Your task to perform on an android device: turn pop-ups on in chrome Image 0: 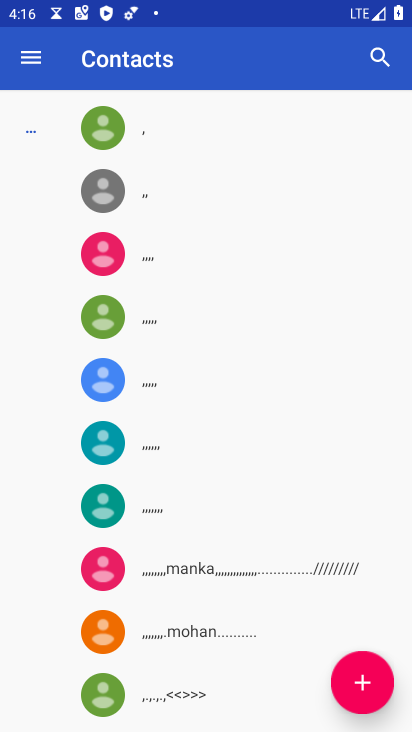
Step 0: press home button
Your task to perform on an android device: turn pop-ups on in chrome Image 1: 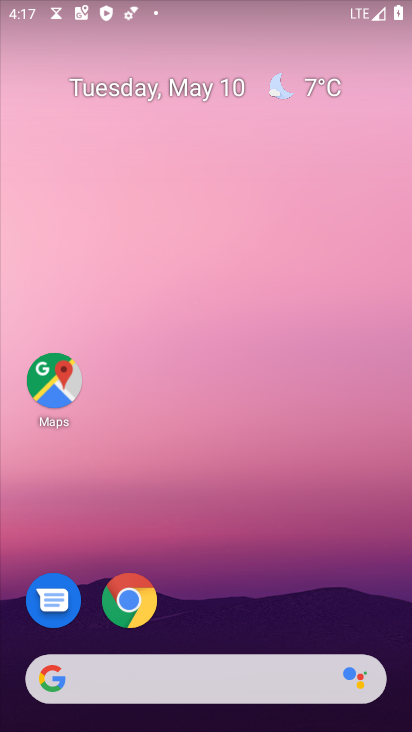
Step 1: click (133, 595)
Your task to perform on an android device: turn pop-ups on in chrome Image 2: 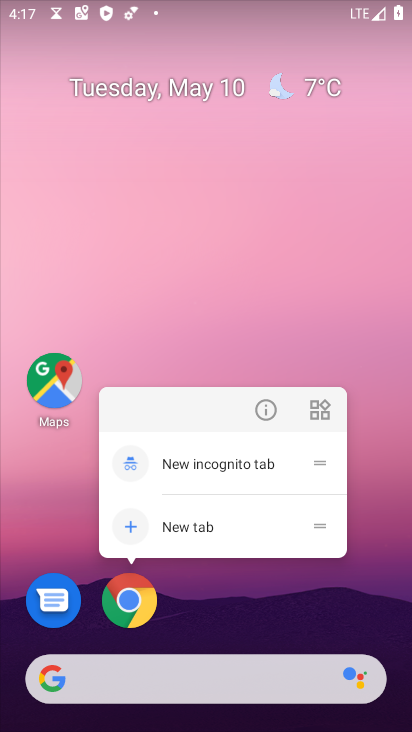
Step 2: click (133, 595)
Your task to perform on an android device: turn pop-ups on in chrome Image 3: 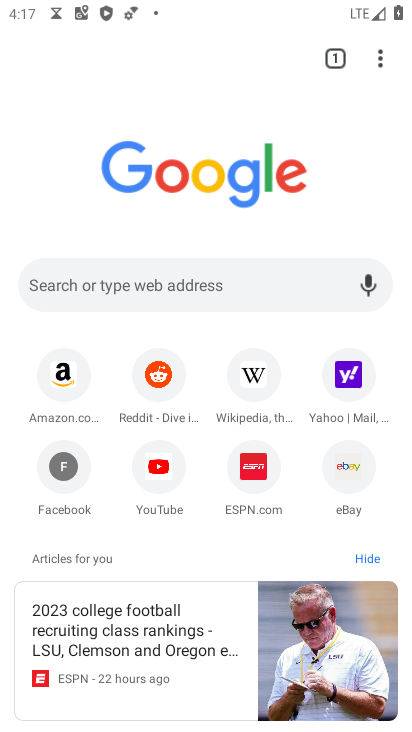
Step 3: click (383, 59)
Your task to perform on an android device: turn pop-ups on in chrome Image 4: 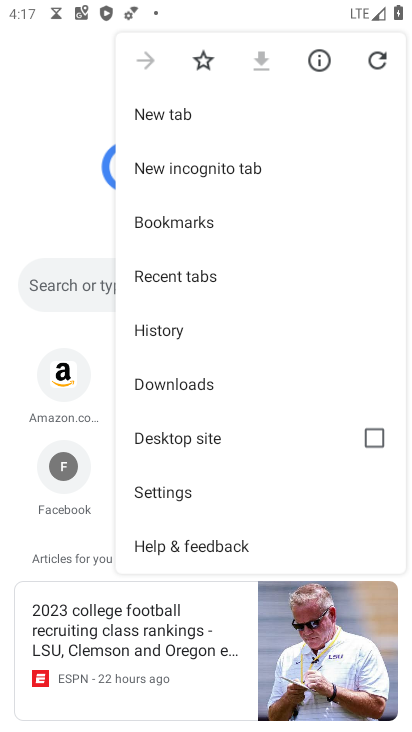
Step 4: click (205, 492)
Your task to perform on an android device: turn pop-ups on in chrome Image 5: 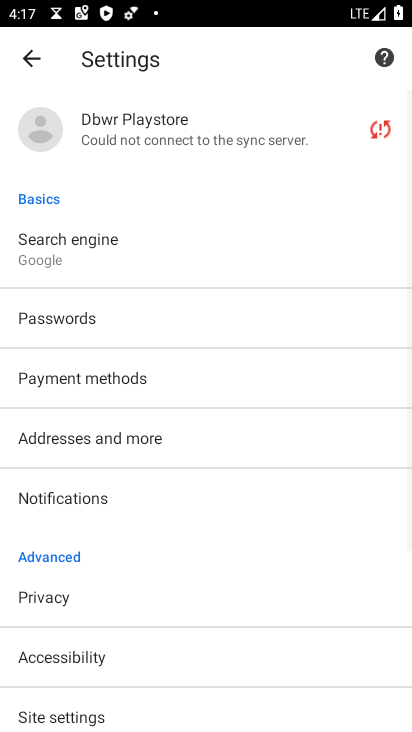
Step 5: drag from (266, 616) to (330, 230)
Your task to perform on an android device: turn pop-ups on in chrome Image 6: 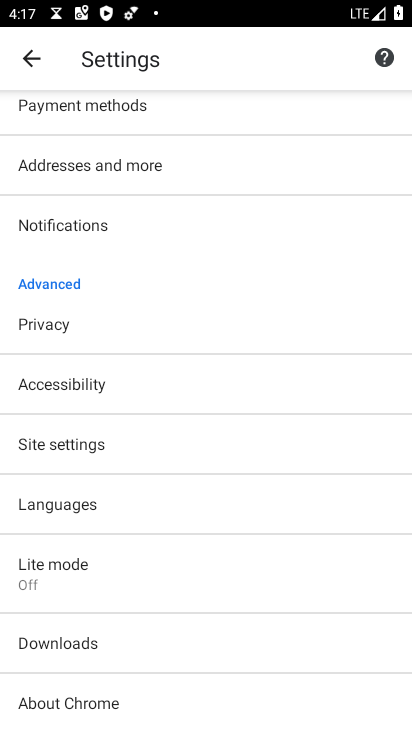
Step 6: click (187, 442)
Your task to perform on an android device: turn pop-ups on in chrome Image 7: 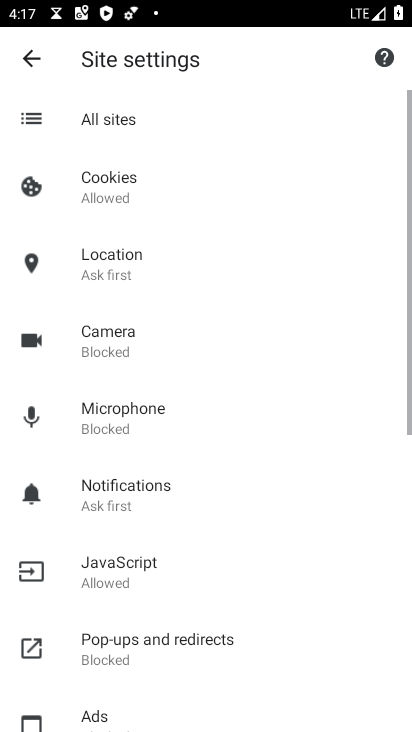
Step 7: drag from (207, 539) to (360, 96)
Your task to perform on an android device: turn pop-ups on in chrome Image 8: 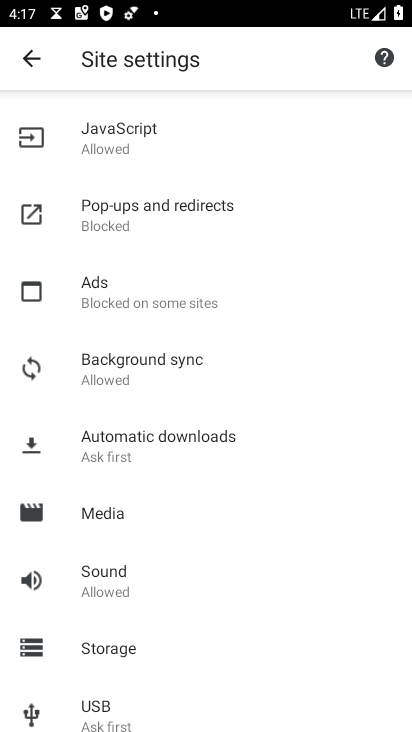
Step 8: click (303, 216)
Your task to perform on an android device: turn pop-ups on in chrome Image 9: 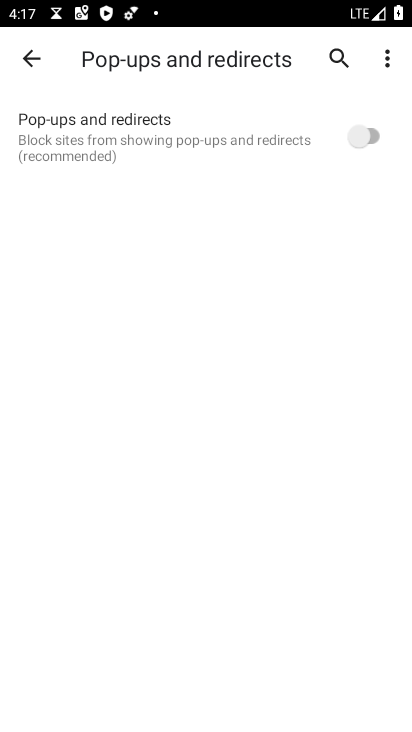
Step 9: click (360, 143)
Your task to perform on an android device: turn pop-ups on in chrome Image 10: 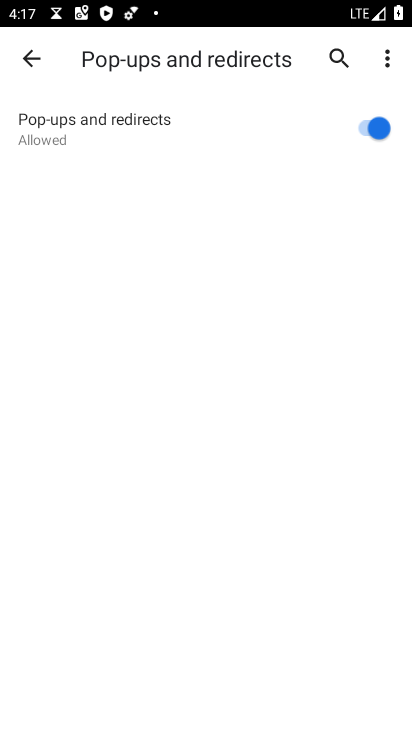
Step 10: task complete